Your task to perform on an android device: turn vacation reply on in the gmail app Image 0: 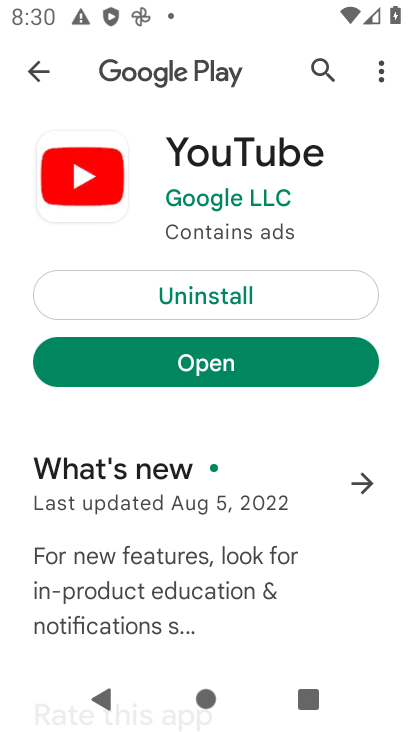
Step 0: press home button
Your task to perform on an android device: turn vacation reply on in the gmail app Image 1: 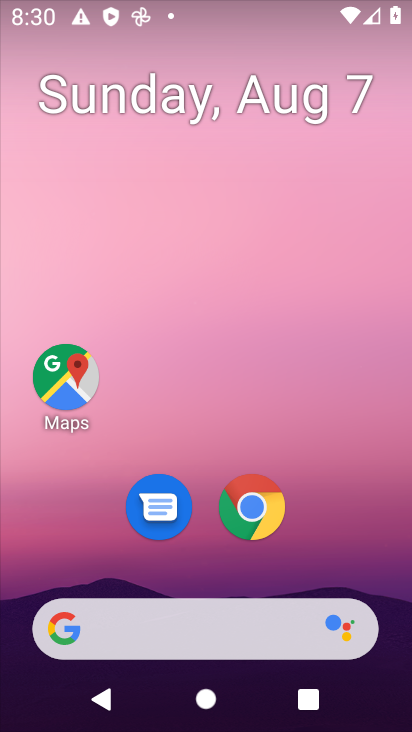
Step 1: drag from (175, 644) to (190, 110)
Your task to perform on an android device: turn vacation reply on in the gmail app Image 2: 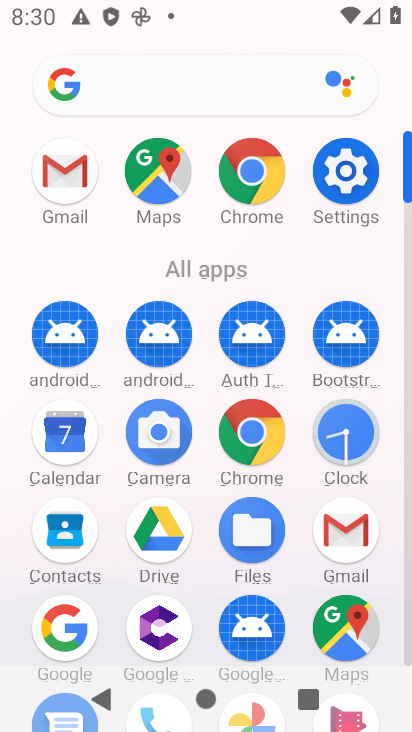
Step 2: click (63, 186)
Your task to perform on an android device: turn vacation reply on in the gmail app Image 3: 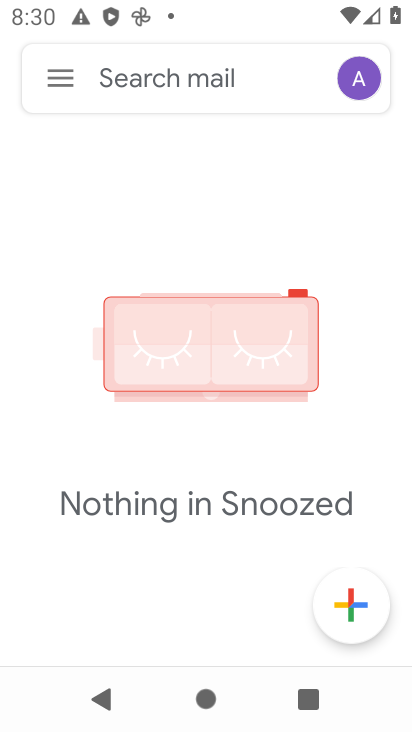
Step 3: click (64, 81)
Your task to perform on an android device: turn vacation reply on in the gmail app Image 4: 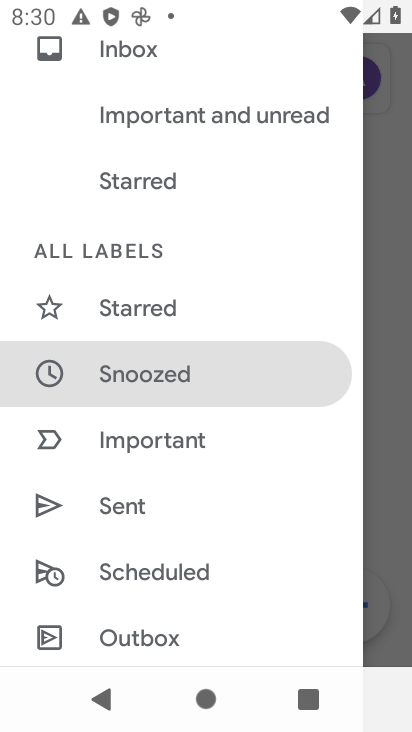
Step 4: drag from (231, 600) to (290, 175)
Your task to perform on an android device: turn vacation reply on in the gmail app Image 5: 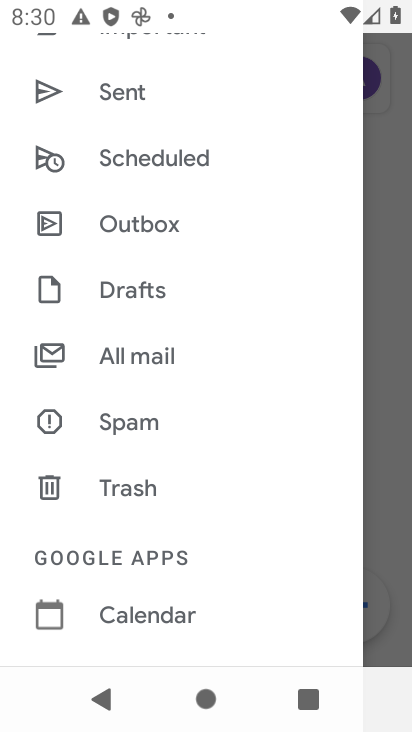
Step 5: drag from (269, 557) to (317, 109)
Your task to perform on an android device: turn vacation reply on in the gmail app Image 6: 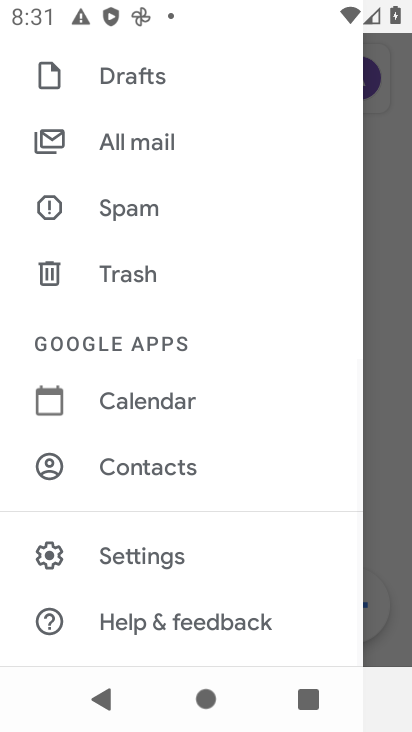
Step 6: click (164, 555)
Your task to perform on an android device: turn vacation reply on in the gmail app Image 7: 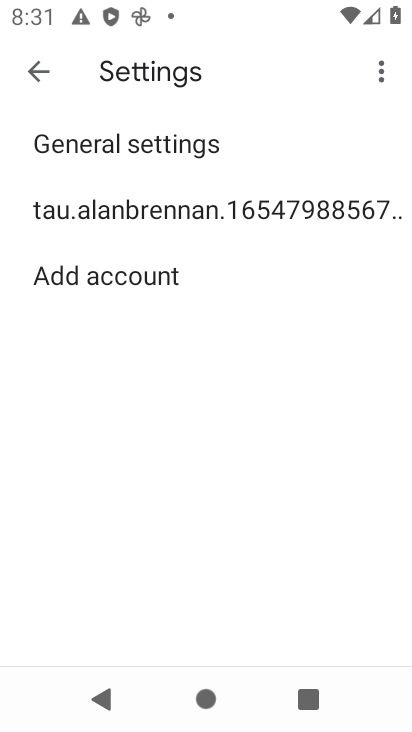
Step 7: click (275, 215)
Your task to perform on an android device: turn vacation reply on in the gmail app Image 8: 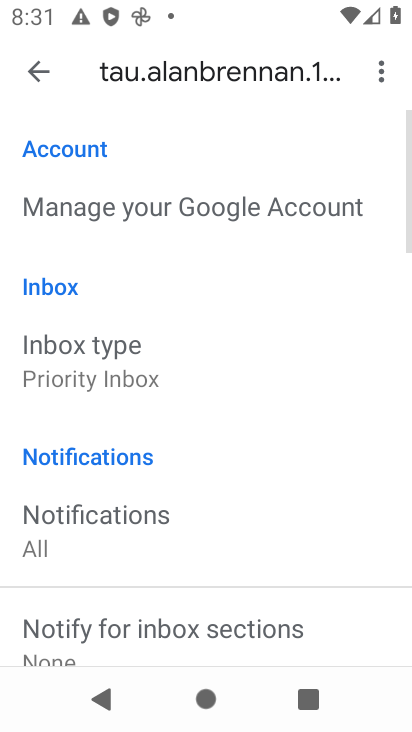
Step 8: drag from (238, 578) to (294, 30)
Your task to perform on an android device: turn vacation reply on in the gmail app Image 9: 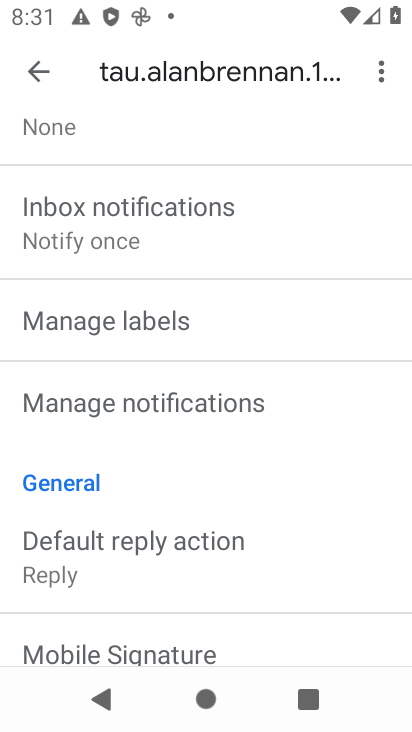
Step 9: drag from (267, 631) to (314, 101)
Your task to perform on an android device: turn vacation reply on in the gmail app Image 10: 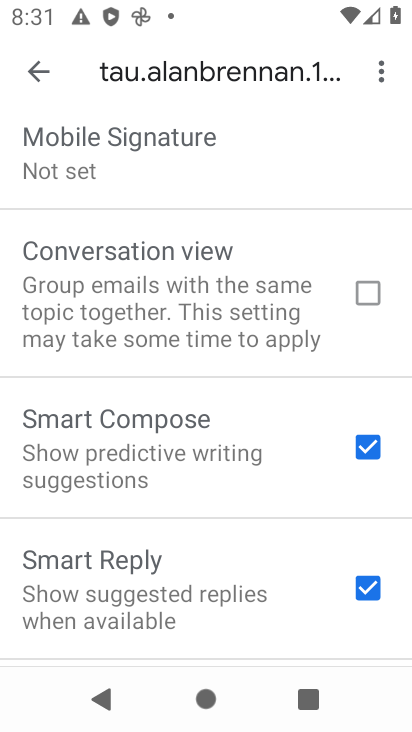
Step 10: drag from (229, 579) to (299, 116)
Your task to perform on an android device: turn vacation reply on in the gmail app Image 11: 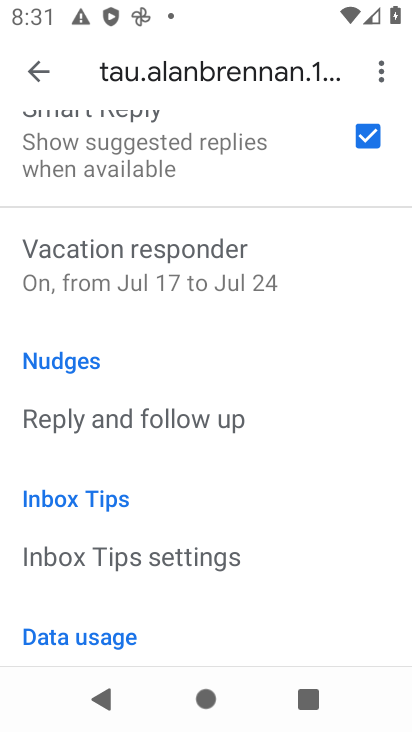
Step 11: click (184, 247)
Your task to perform on an android device: turn vacation reply on in the gmail app Image 12: 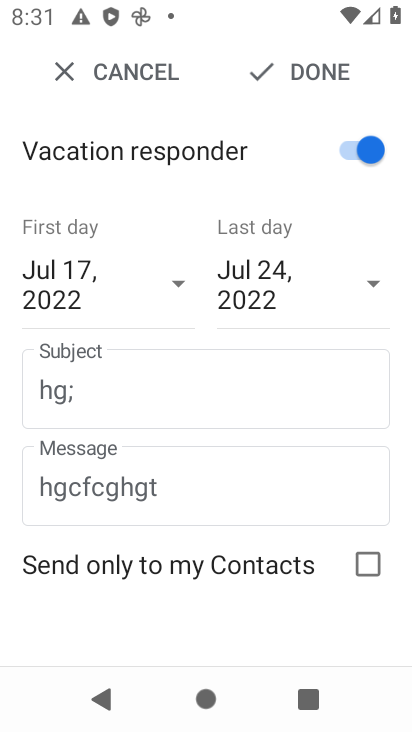
Step 12: task complete